Your task to perform on an android device: Open my contact list Image 0: 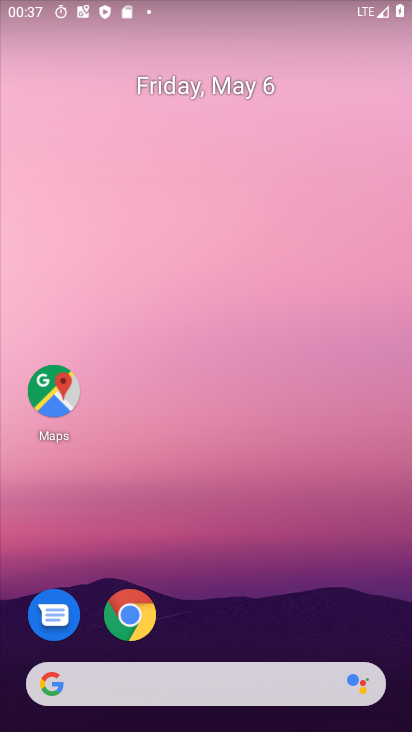
Step 0: drag from (247, 541) to (284, 81)
Your task to perform on an android device: Open my contact list Image 1: 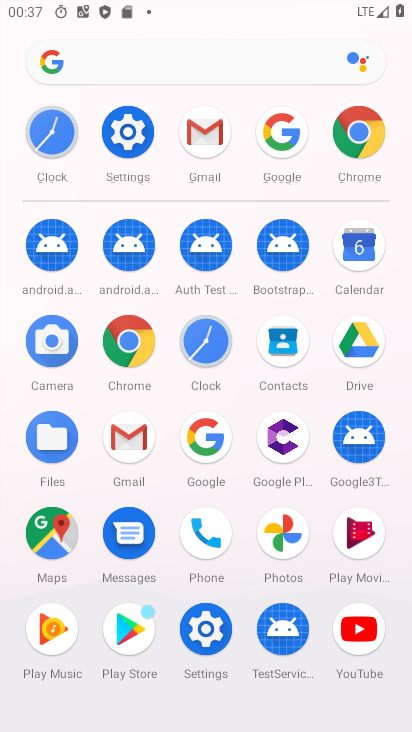
Step 1: click (286, 343)
Your task to perform on an android device: Open my contact list Image 2: 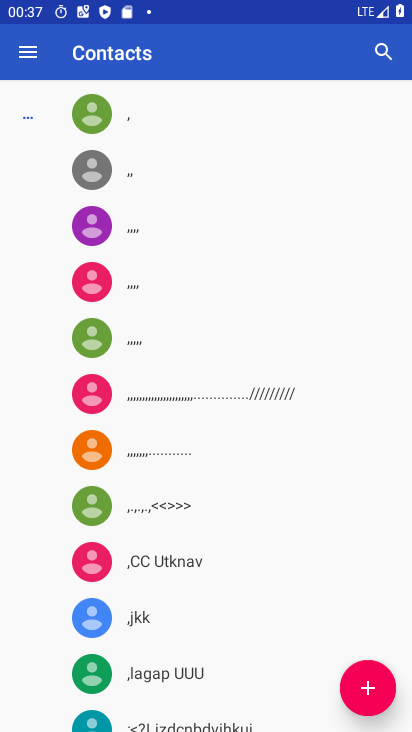
Step 2: task complete